Your task to perform on an android device: Open Youtube and go to the subscriptions tab Image 0: 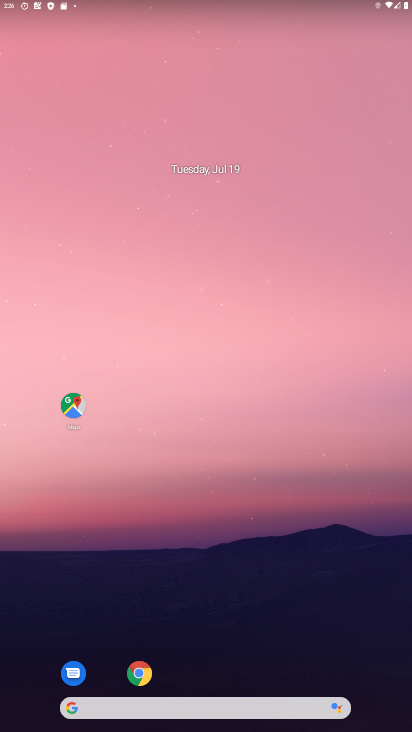
Step 0: drag from (227, 677) to (185, 0)
Your task to perform on an android device: Open Youtube and go to the subscriptions tab Image 1: 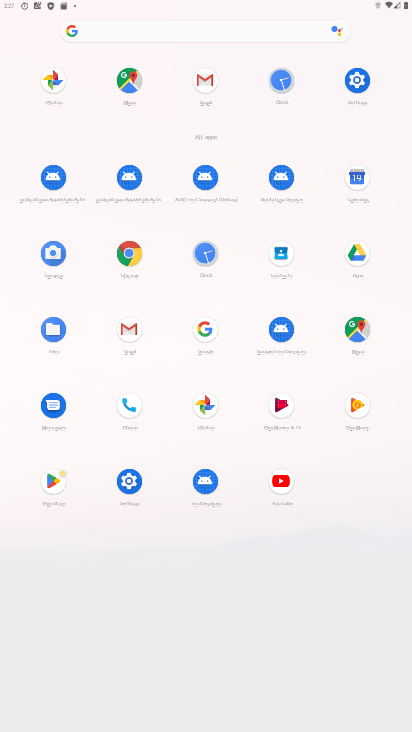
Step 1: click (280, 491)
Your task to perform on an android device: Open Youtube and go to the subscriptions tab Image 2: 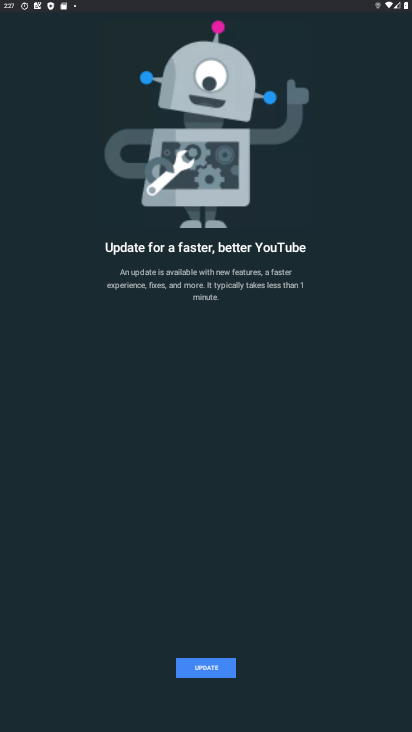
Step 2: click (228, 644)
Your task to perform on an android device: Open Youtube and go to the subscriptions tab Image 3: 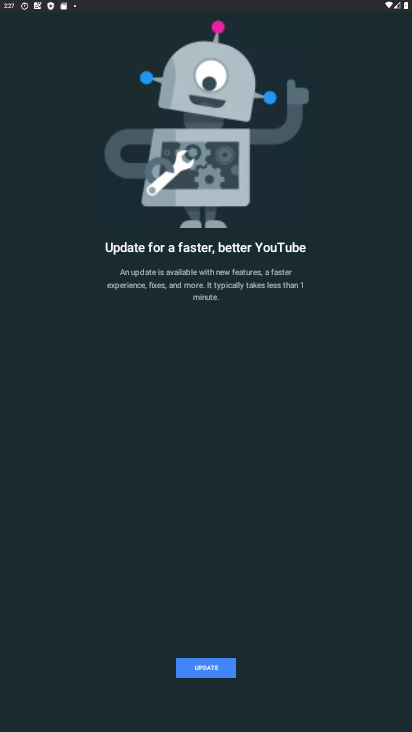
Step 3: click (218, 667)
Your task to perform on an android device: Open Youtube and go to the subscriptions tab Image 4: 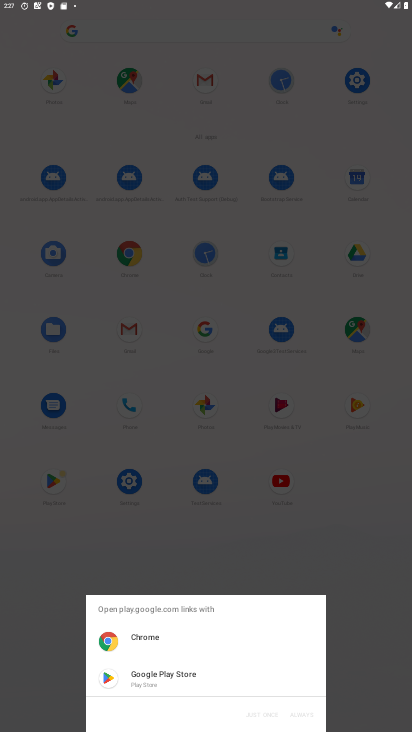
Step 4: click (166, 669)
Your task to perform on an android device: Open Youtube and go to the subscriptions tab Image 5: 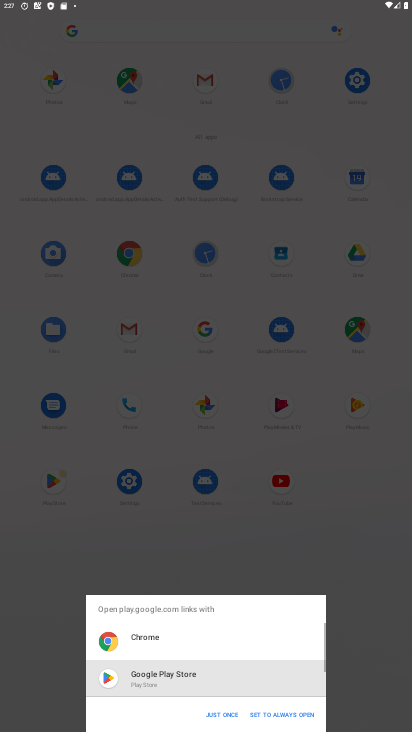
Step 5: click (214, 713)
Your task to perform on an android device: Open Youtube and go to the subscriptions tab Image 6: 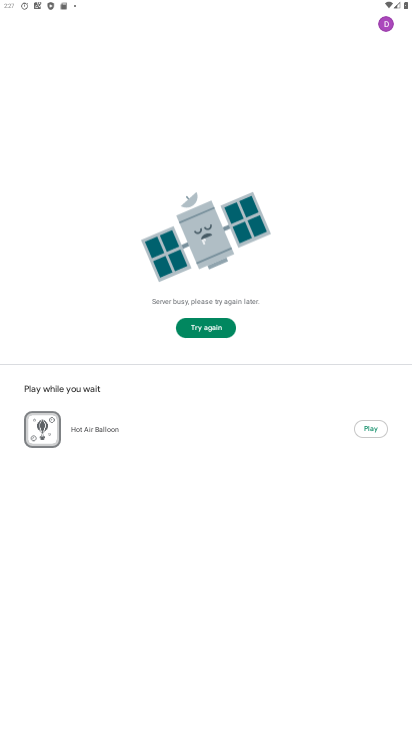
Step 6: click (198, 322)
Your task to perform on an android device: Open Youtube and go to the subscriptions tab Image 7: 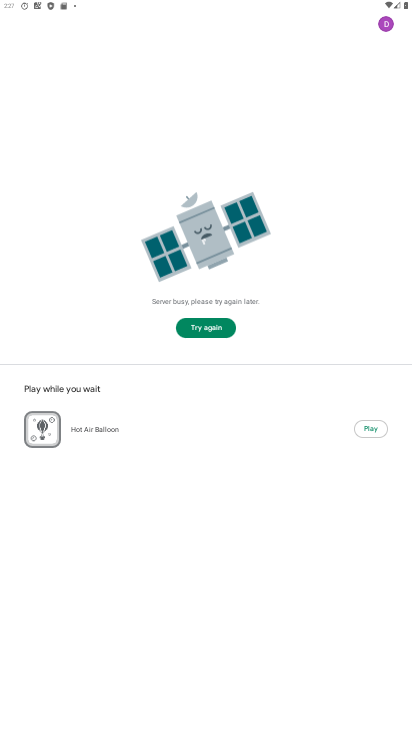
Step 7: task complete